Your task to perform on an android device: turn on the 24-hour format for clock Image 0: 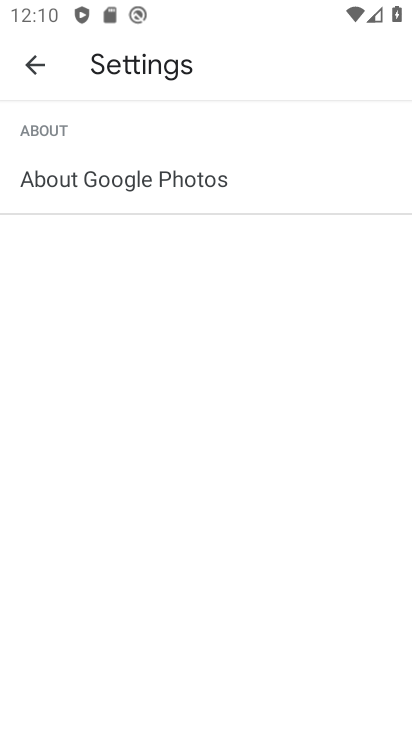
Step 0: press home button
Your task to perform on an android device: turn on the 24-hour format for clock Image 1: 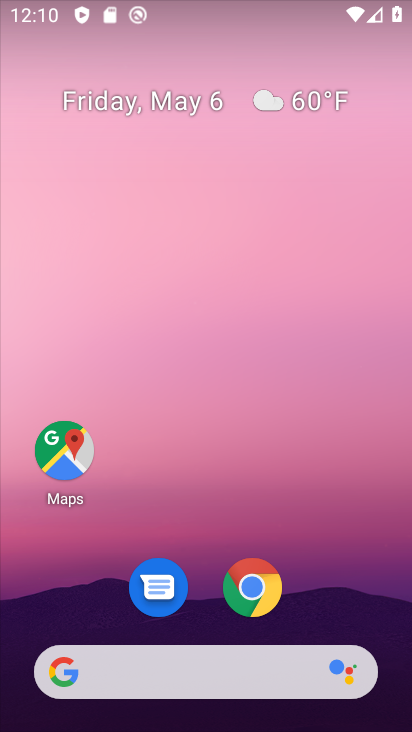
Step 1: drag from (378, 603) to (361, 233)
Your task to perform on an android device: turn on the 24-hour format for clock Image 2: 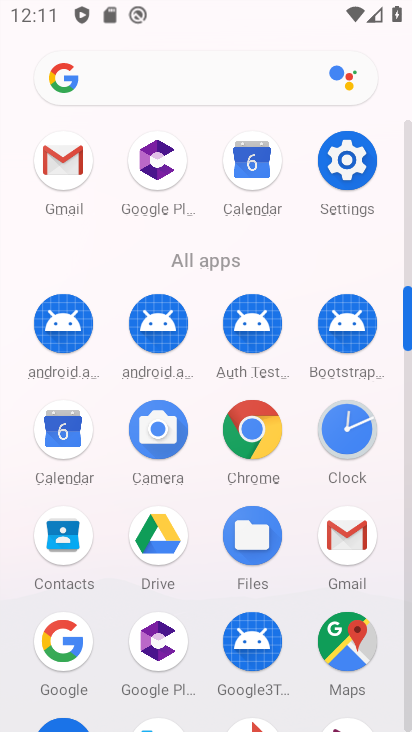
Step 2: click (342, 446)
Your task to perform on an android device: turn on the 24-hour format for clock Image 3: 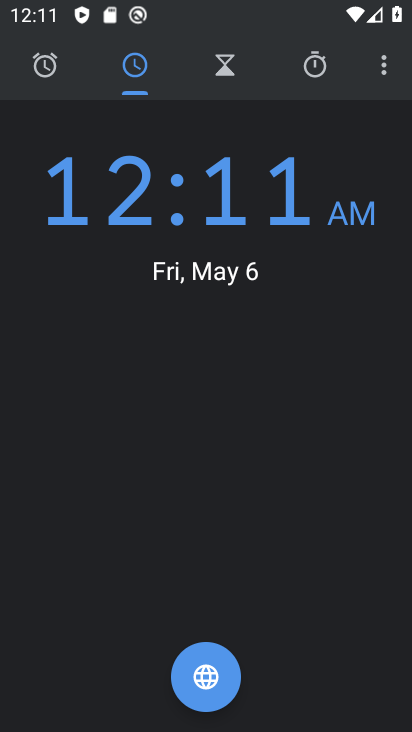
Step 3: click (378, 63)
Your task to perform on an android device: turn on the 24-hour format for clock Image 4: 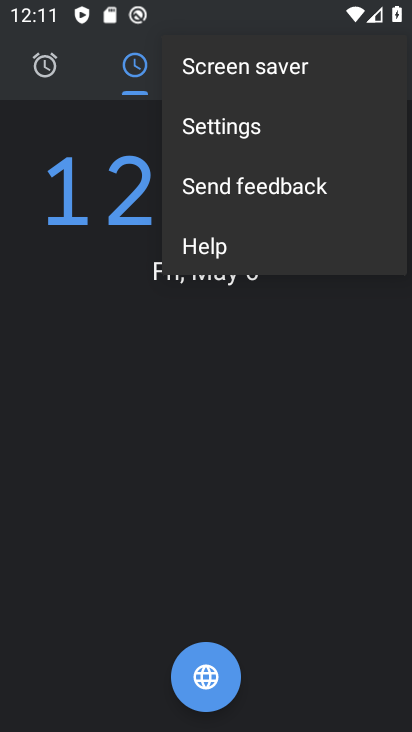
Step 4: click (202, 123)
Your task to perform on an android device: turn on the 24-hour format for clock Image 5: 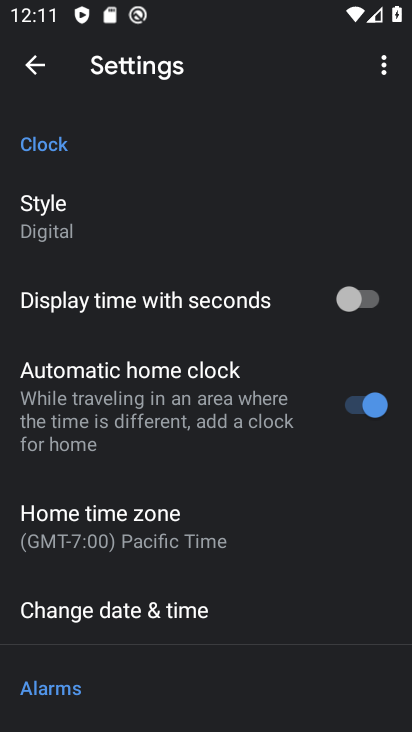
Step 5: click (141, 608)
Your task to perform on an android device: turn on the 24-hour format for clock Image 6: 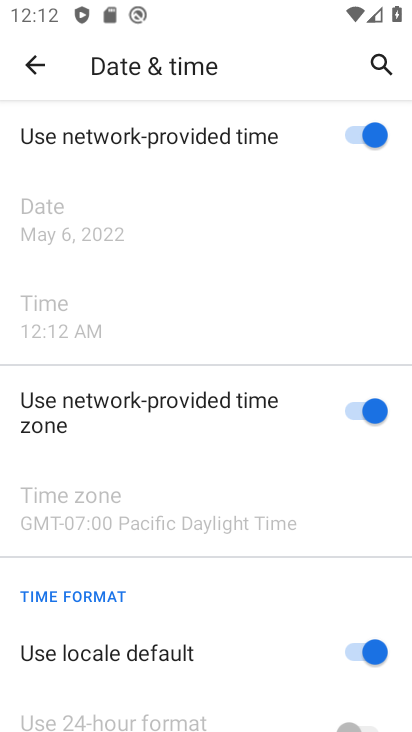
Step 6: drag from (238, 550) to (207, 325)
Your task to perform on an android device: turn on the 24-hour format for clock Image 7: 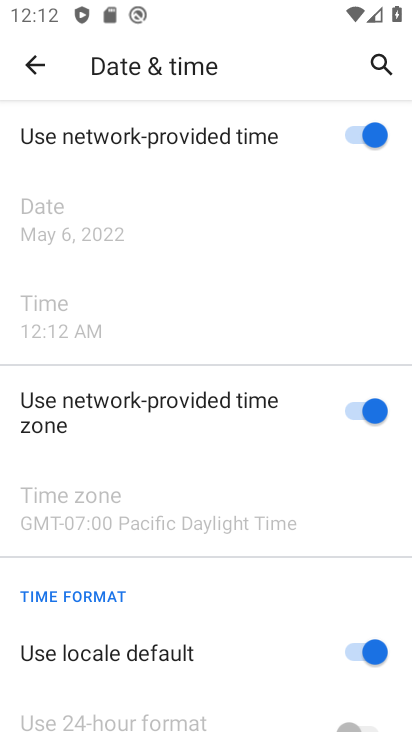
Step 7: drag from (275, 682) to (242, 205)
Your task to perform on an android device: turn on the 24-hour format for clock Image 8: 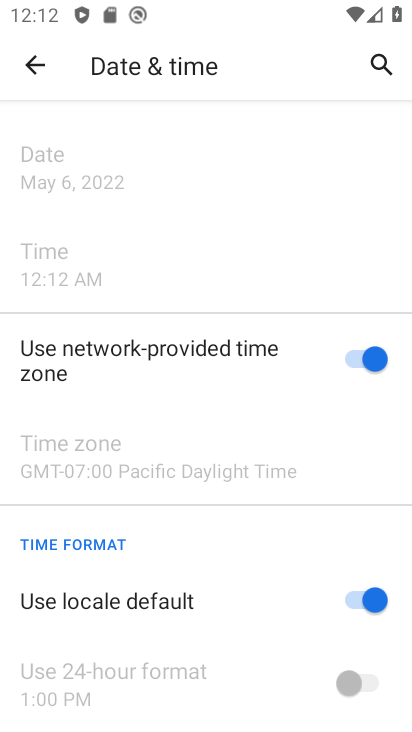
Step 8: click (352, 595)
Your task to perform on an android device: turn on the 24-hour format for clock Image 9: 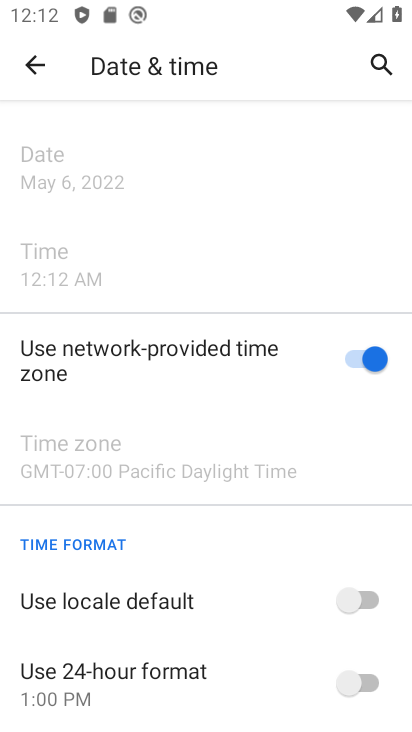
Step 9: click (365, 685)
Your task to perform on an android device: turn on the 24-hour format for clock Image 10: 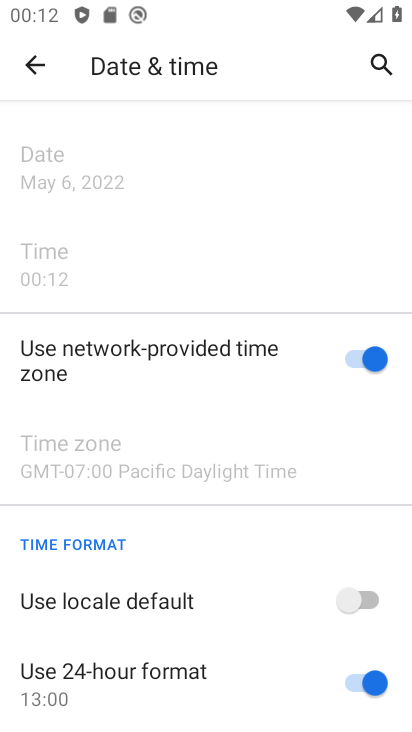
Step 10: task complete